Your task to perform on an android device: delete location history Image 0: 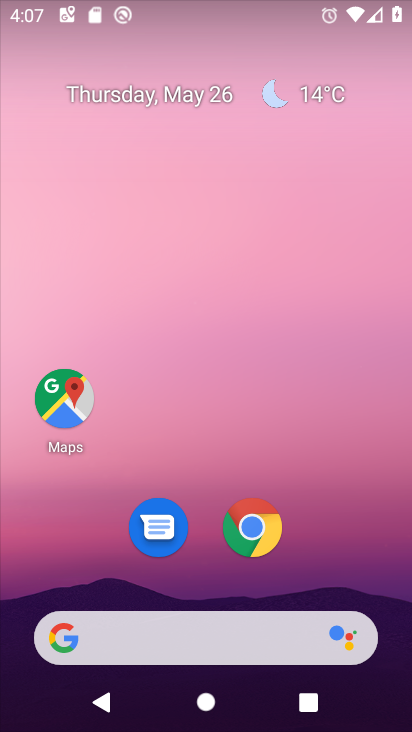
Step 0: click (67, 375)
Your task to perform on an android device: delete location history Image 1: 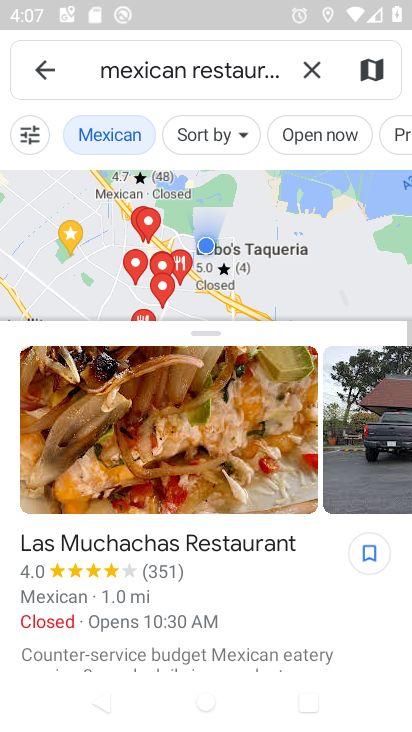
Step 1: click (43, 74)
Your task to perform on an android device: delete location history Image 2: 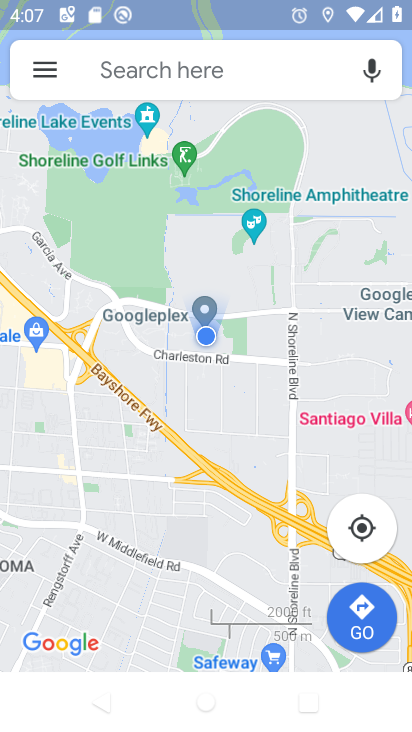
Step 2: click (43, 74)
Your task to perform on an android device: delete location history Image 3: 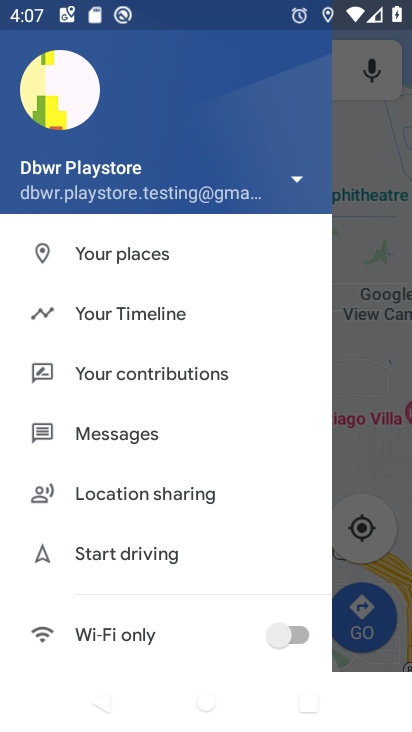
Step 3: click (113, 323)
Your task to perform on an android device: delete location history Image 4: 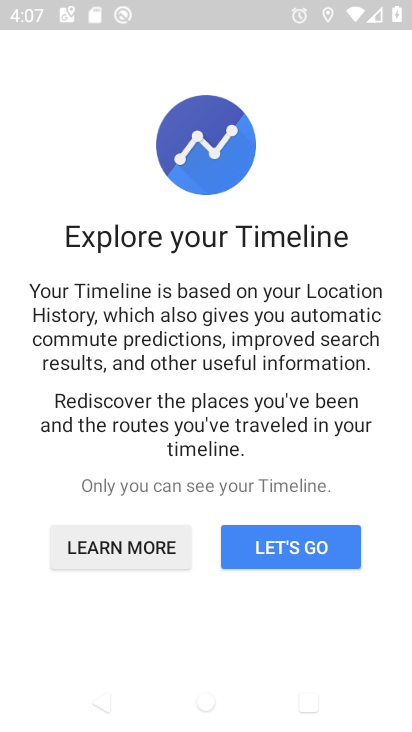
Step 4: click (256, 542)
Your task to perform on an android device: delete location history Image 5: 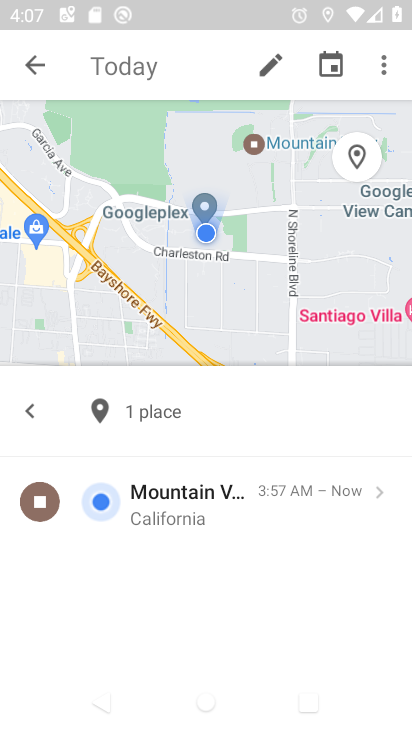
Step 5: click (382, 78)
Your task to perform on an android device: delete location history Image 6: 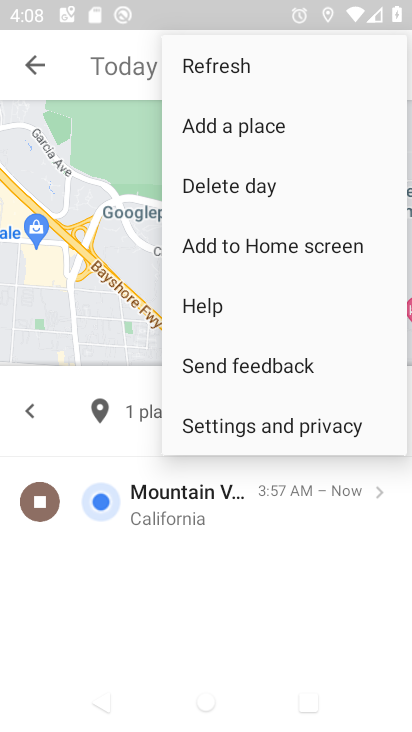
Step 6: click (315, 422)
Your task to perform on an android device: delete location history Image 7: 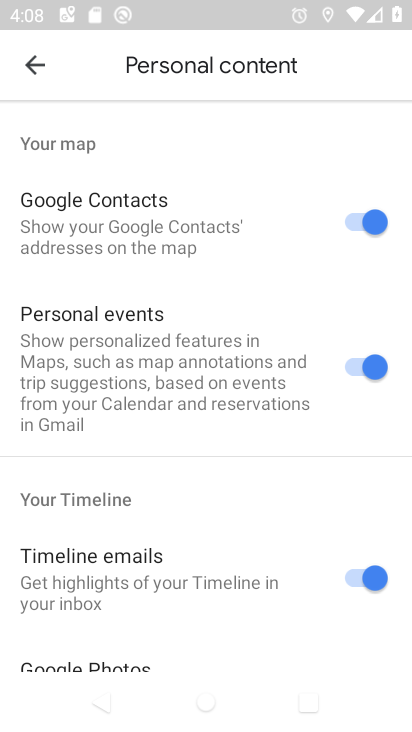
Step 7: drag from (253, 610) to (257, 240)
Your task to perform on an android device: delete location history Image 8: 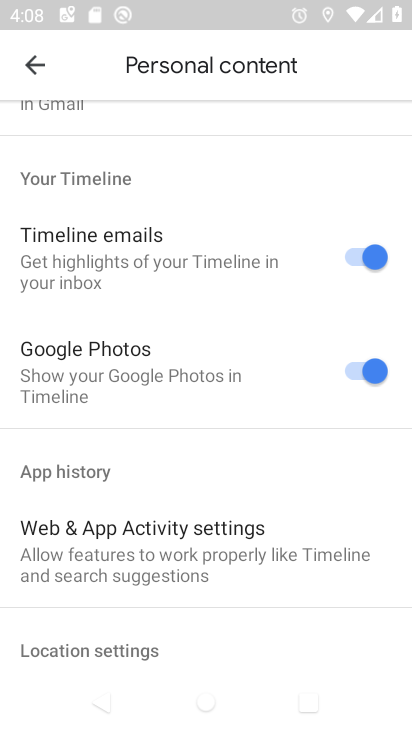
Step 8: drag from (241, 562) to (215, 219)
Your task to perform on an android device: delete location history Image 9: 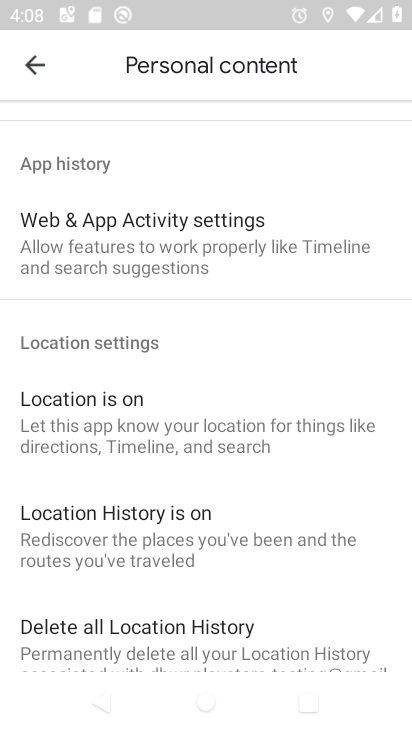
Step 9: click (238, 635)
Your task to perform on an android device: delete location history Image 10: 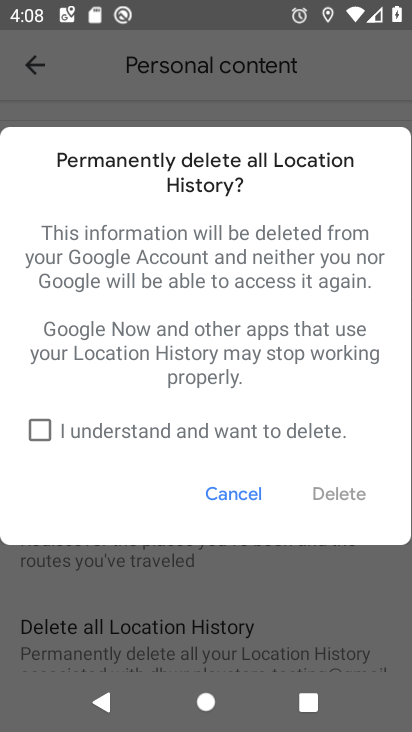
Step 10: click (284, 430)
Your task to perform on an android device: delete location history Image 11: 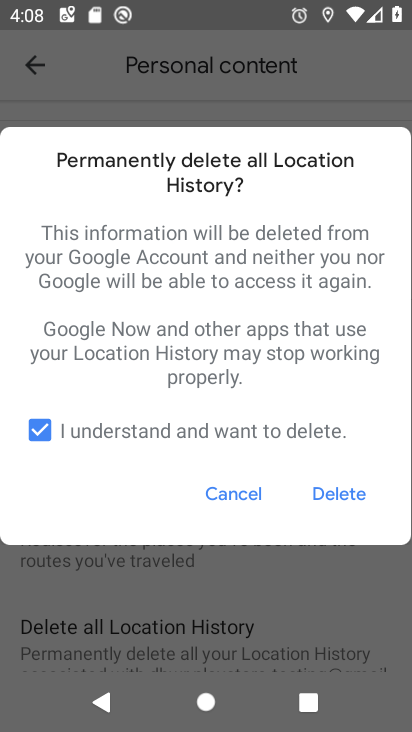
Step 11: click (332, 482)
Your task to perform on an android device: delete location history Image 12: 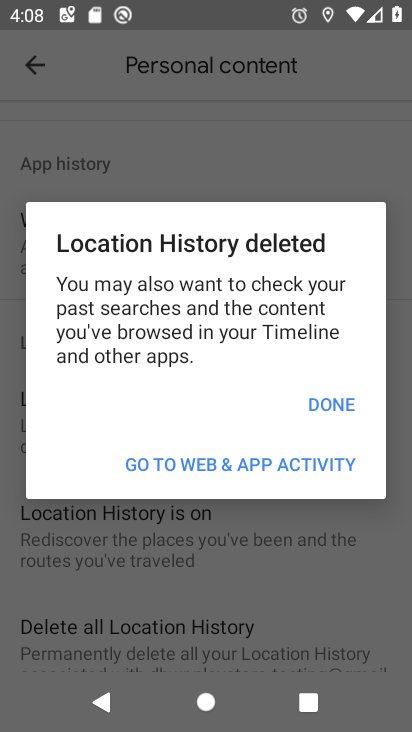
Step 12: click (324, 413)
Your task to perform on an android device: delete location history Image 13: 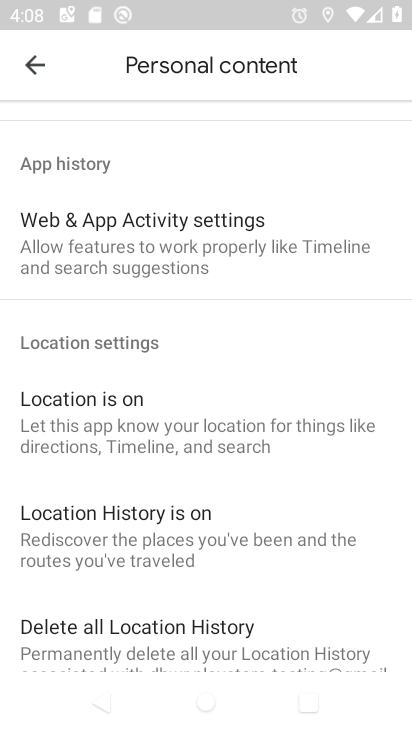
Step 13: task complete